Your task to perform on an android device: change notification settings in the gmail app Image 0: 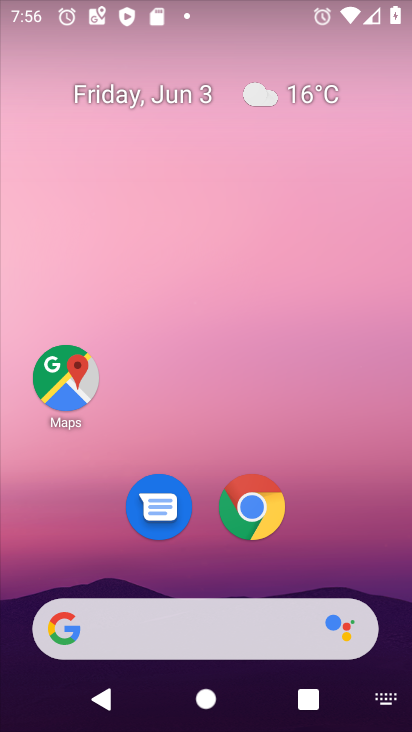
Step 0: drag from (352, 538) to (274, 55)
Your task to perform on an android device: change notification settings in the gmail app Image 1: 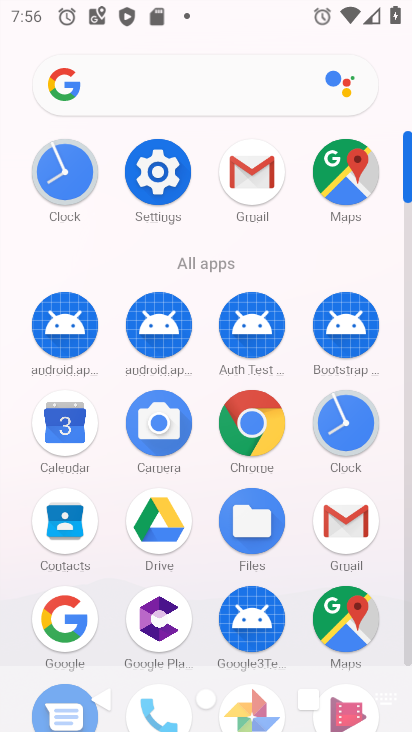
Step 1: click (361, 529)
Your task to perform on an android device: change notification settings in the gmail app Image 2: 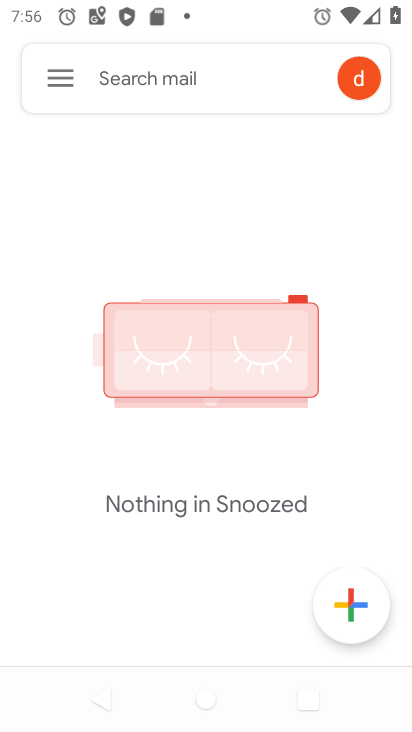
Step 2: click (68, 79)
Your task to perform on an android device: change notification settings in the gmail app Image 3: 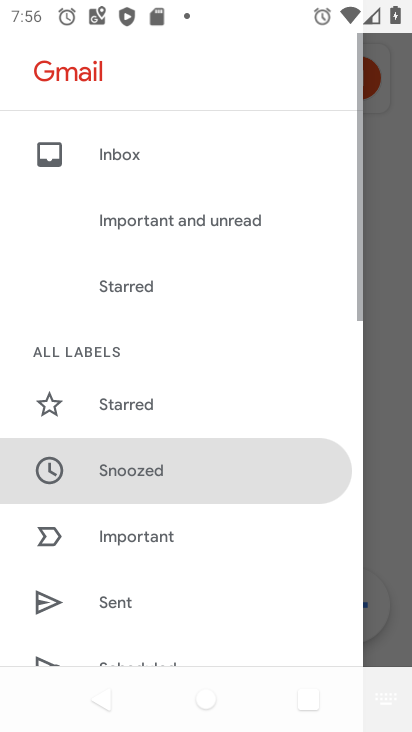
Step 3: drag from (219, 0) to (121, 44)
Your task to perform on an android device: change notification settings in the gmail app Image 4: 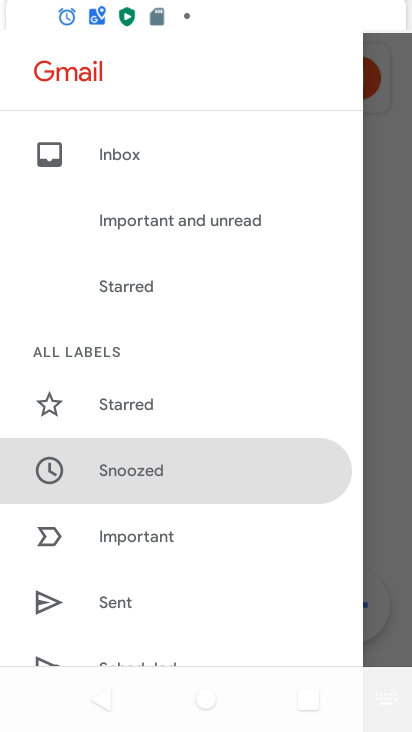
Step 4: drag from (175, 561) to (138, 79)
Your task to perform on an android device: change notification settings in the gmail app Image 5: 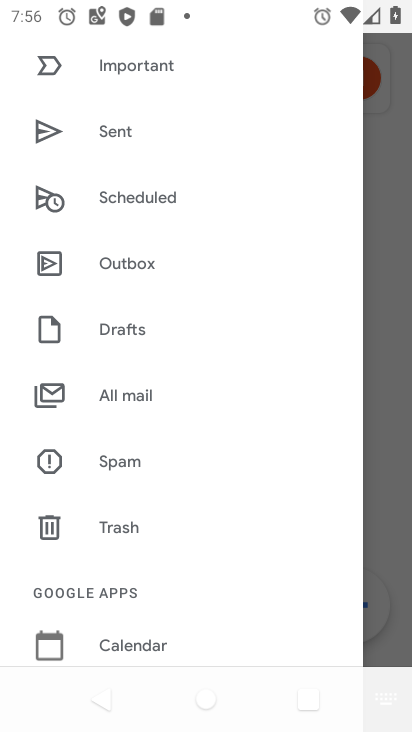
Step 5: drag from (217, 476) to (221, 60)
Your task to perform on an android device: change notification settings in the gmail app Image 6: 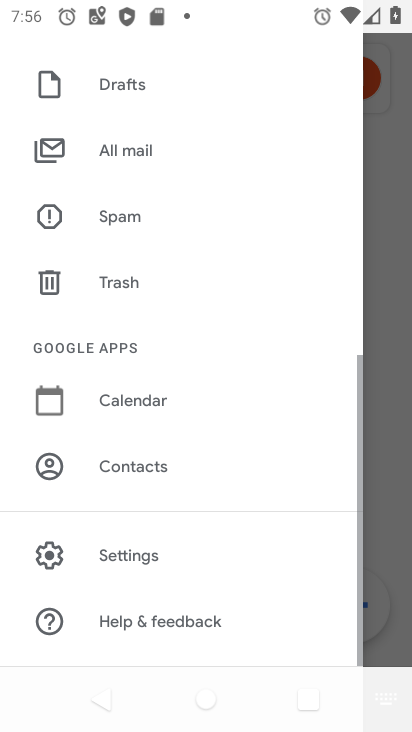
Step 6: click (195, 519)
Your task to perform on an android device: change notification settings in the gmail app Image 7: 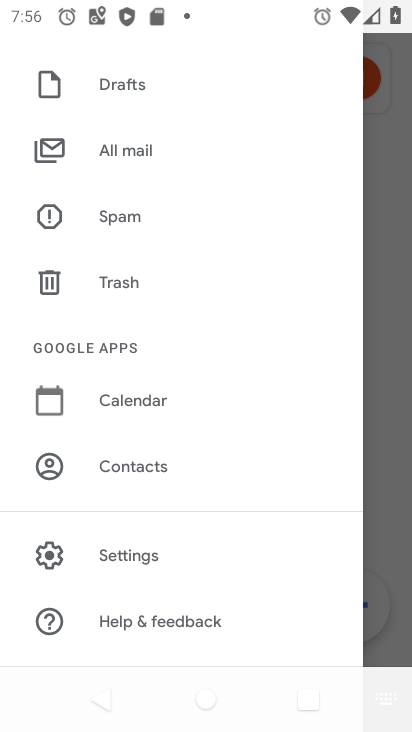
Step 7: click (157, 552)
Your task to perform on an android device: change notification settings in the gmail app Image 8: 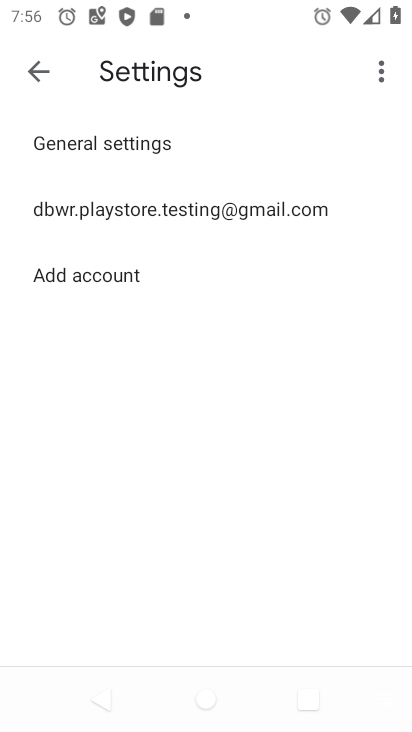
Step 8: click (189, 205)
Your task to perform on an android device: change notification settings in the gmail app Image 9: 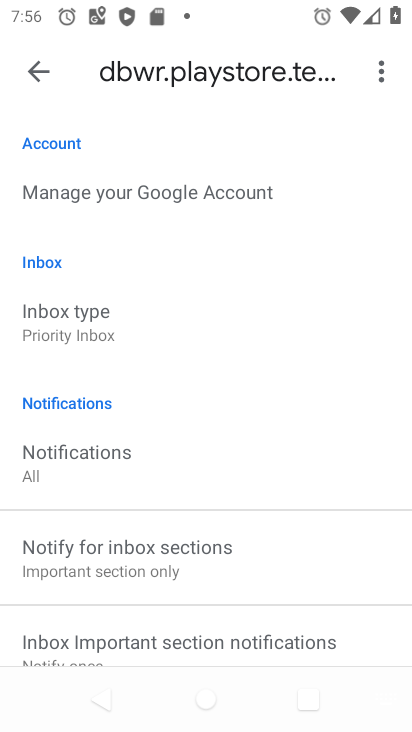
Step 9: click (179, 478)
Your task to perform on an android device: change notification settings in the gmail app Image 10: 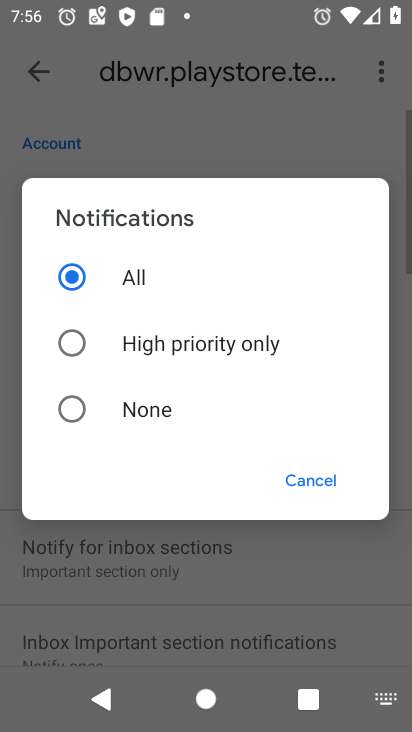
Step 10: click (145, 424)
Your task to perform on an android device: change notification settings in the gmail app Image 11: 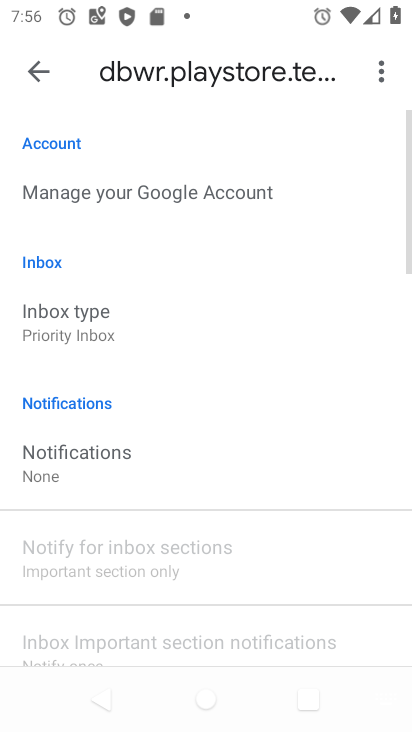
Step 11: task complete